Your task to perform on an android device: turn on sleep mode Image 0: 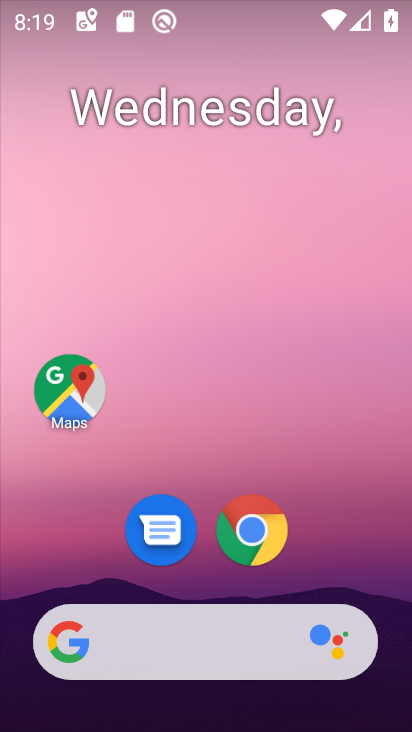
Step 0: drag from (397, 613) to (282, 60)
Your task to perform on an android device: turn on sleep mode Image 1: 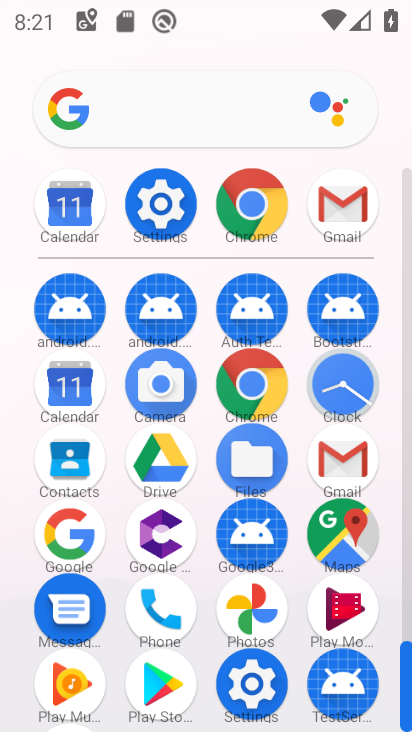
Step 1: click (263, 685)
Your task to perform on an android device: turn on sleep mode Image 2: 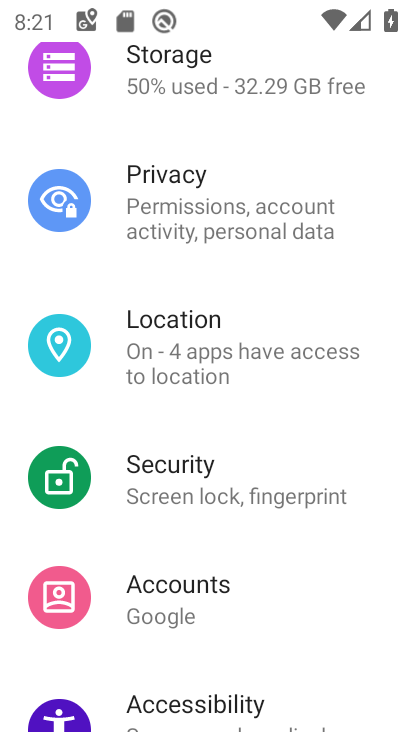
Step 2: task complete